Your task to perform on an android device: What's on my calendar today? Image 0: 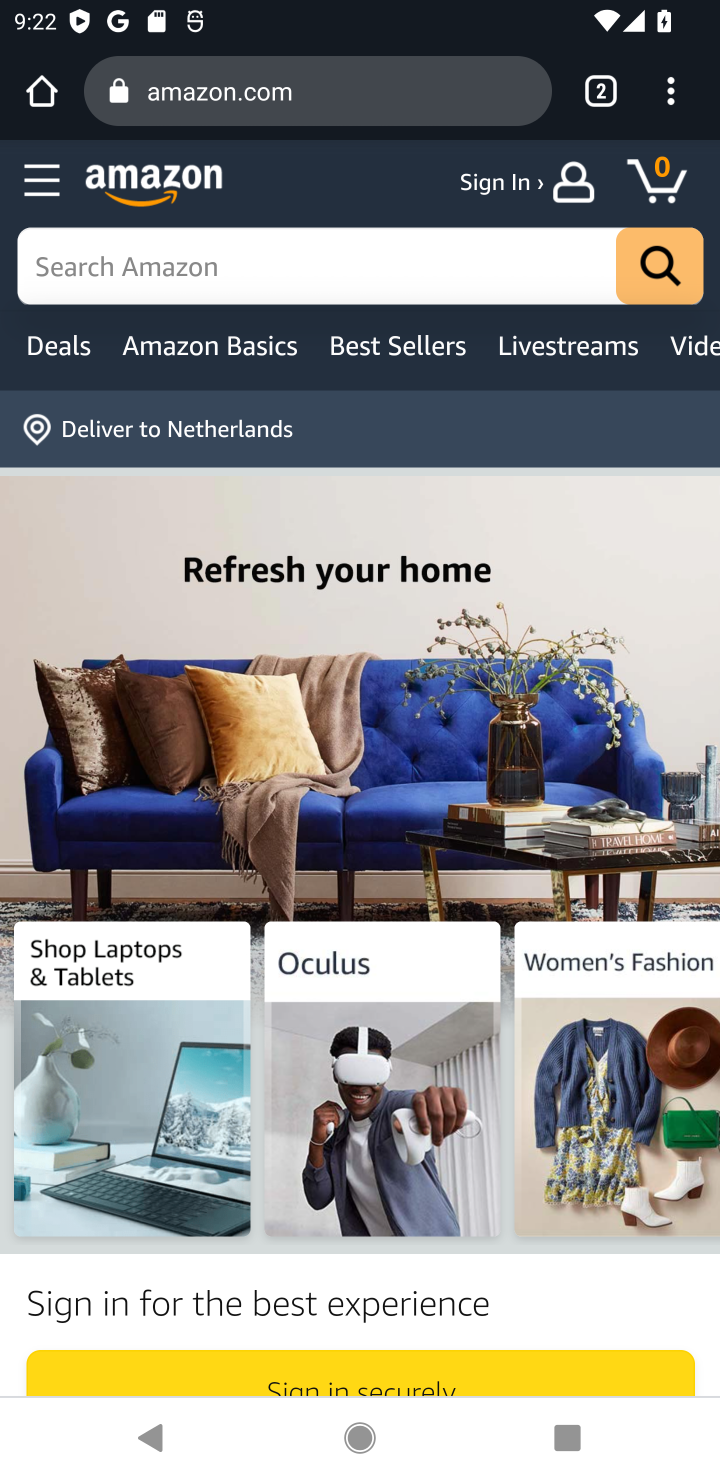
Step 0: press home button
Your task to perform on an android device: What's on my calendar today? Image 1: 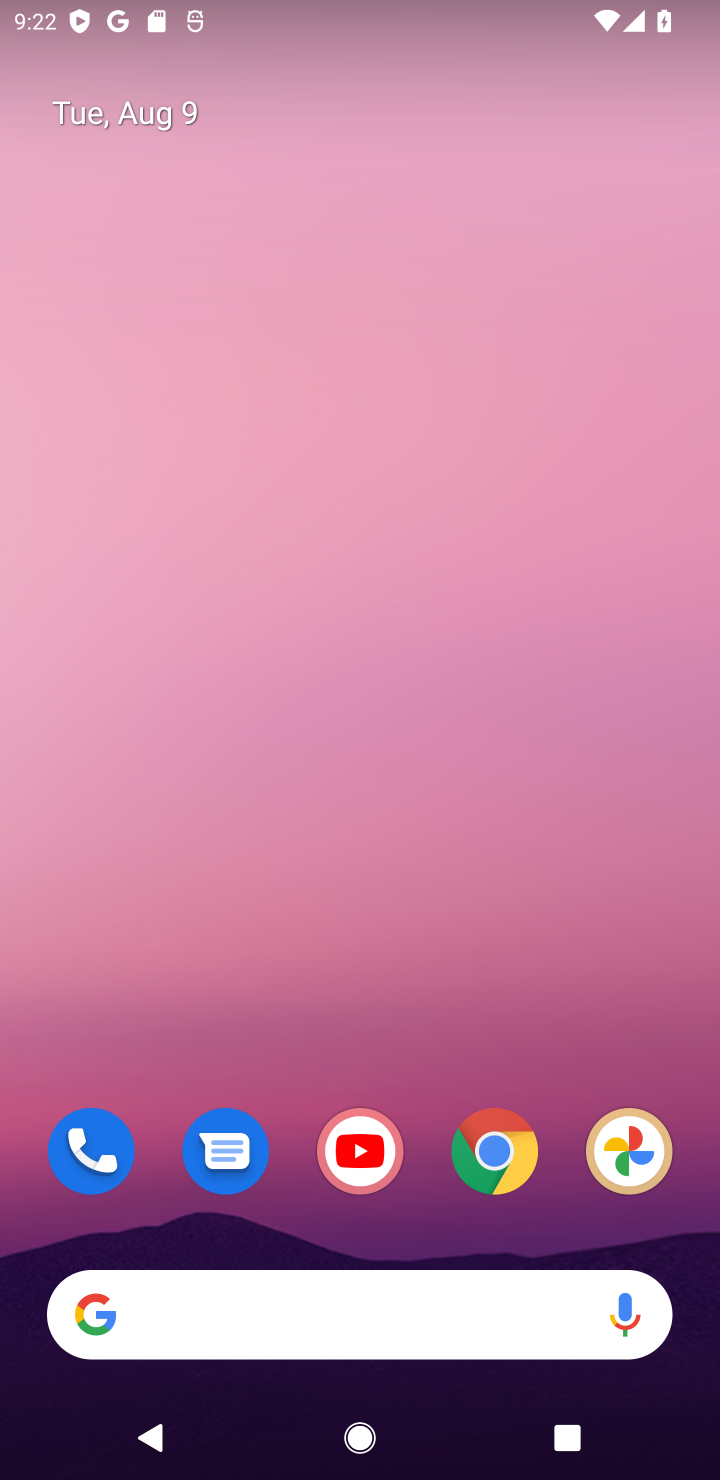
Step 1: drag from (408, 1057) to (423, 610)
Your task to perform on an android device: What's on my calendar today? Image 2: 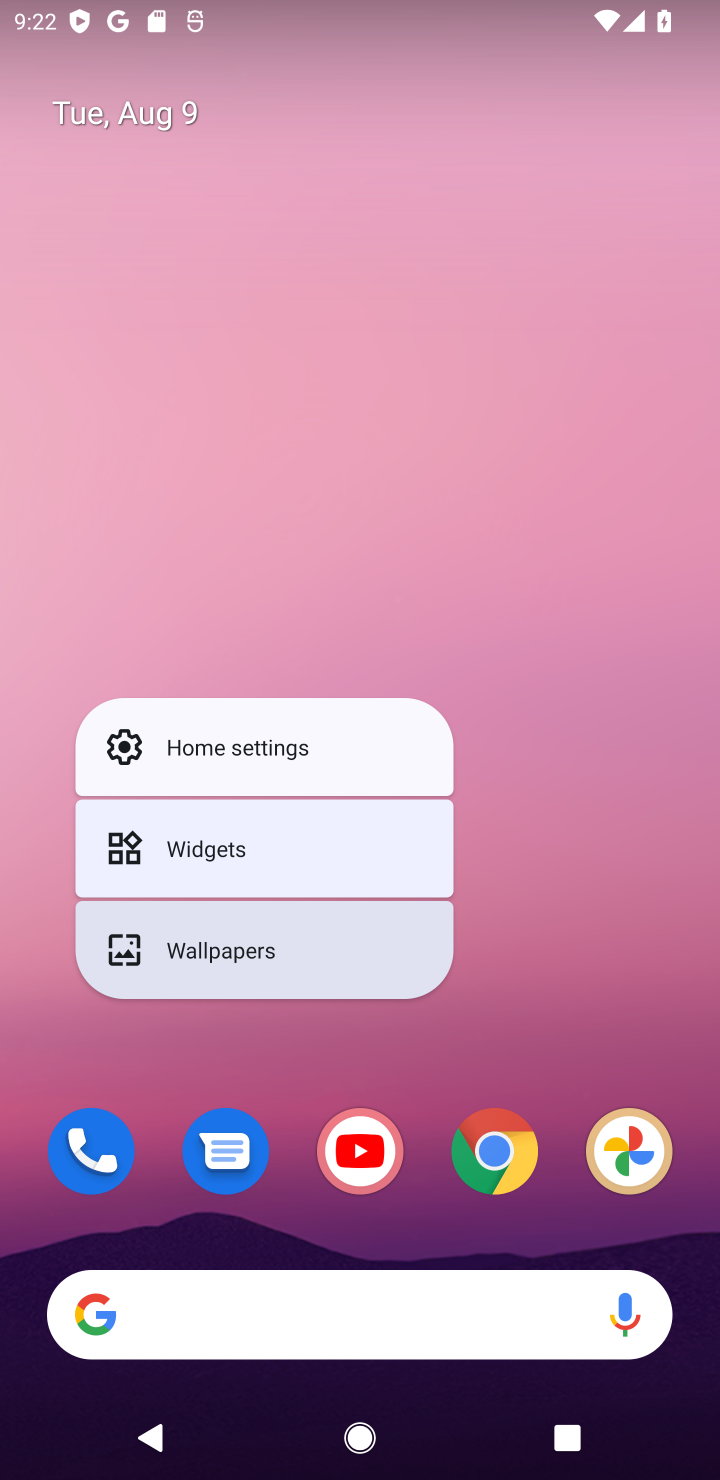
Step 2: click (120, 102)
Your task to perform on an android device: What's on my calendar today? Image 3: 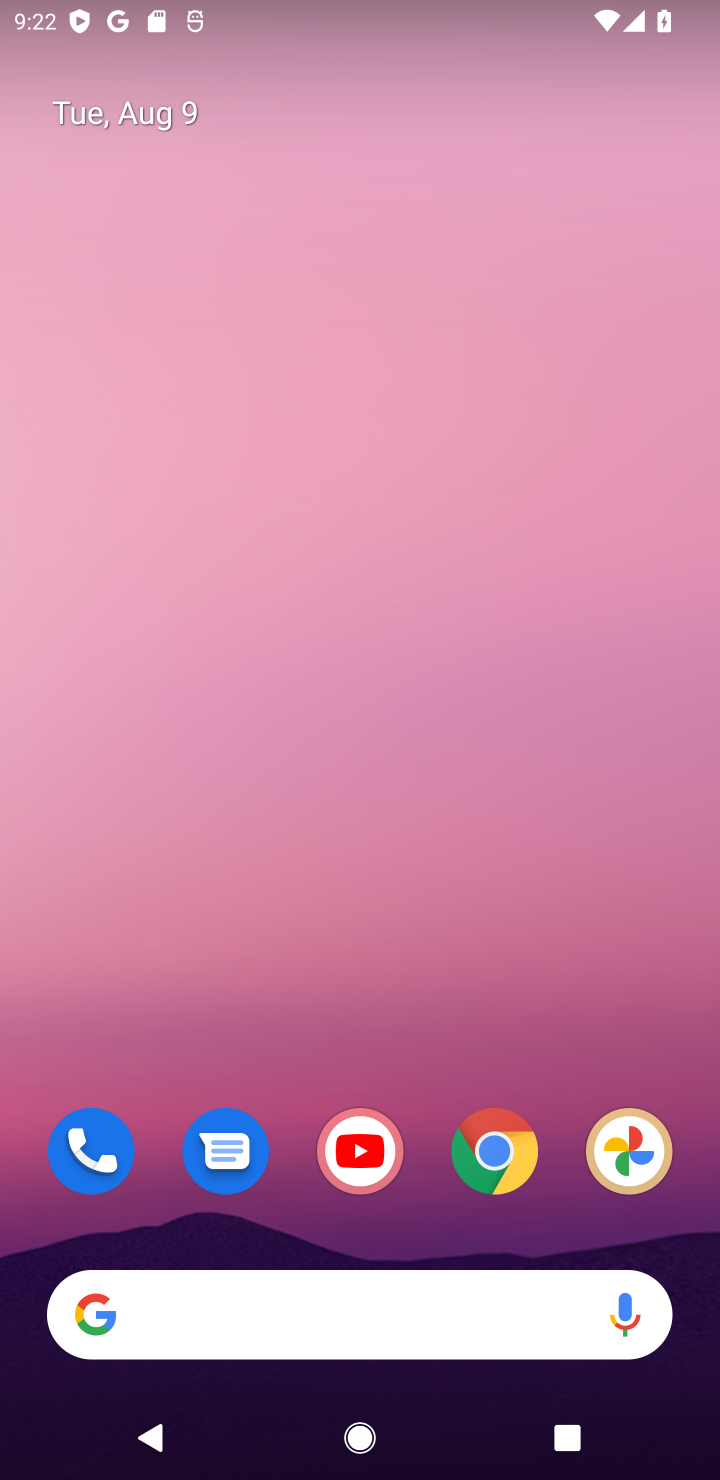
Step 3: click (120, 102)
Your task to perform on an android device: What's on my calendar today? Image 4: 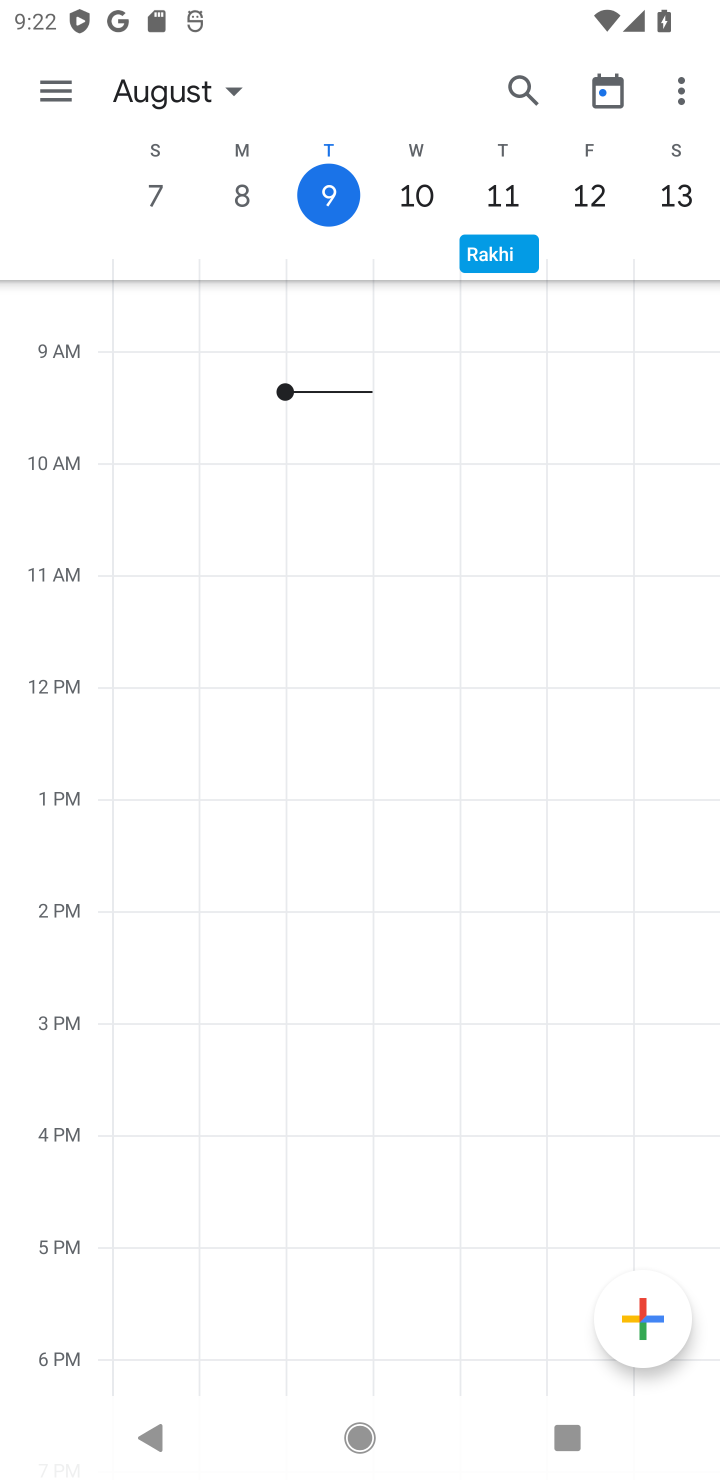
Step 4: click (62, 87)
Your task to perform on an android device: What's on my calendar today? Image 5: 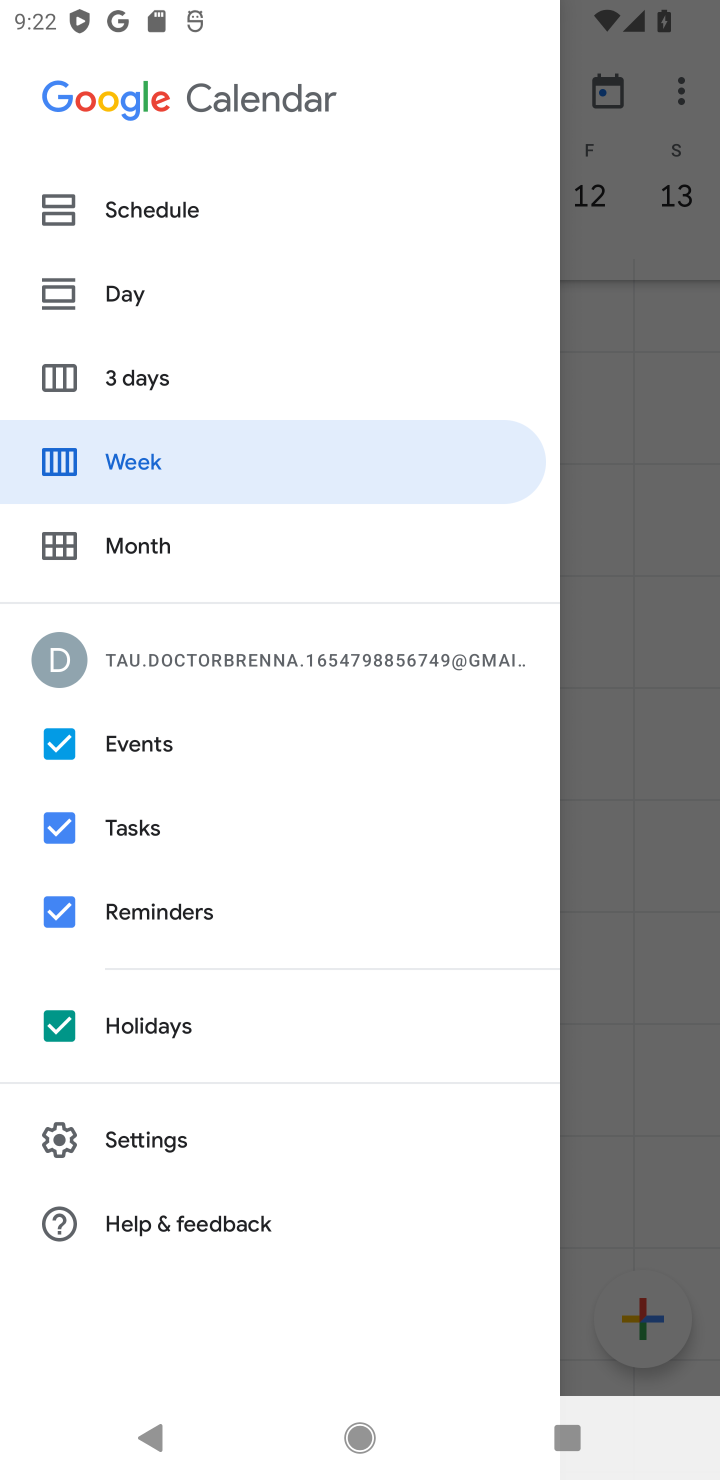
Step 5: click (130, 299)
Your task to perform on an android device: What's on my calendar today? Image 6: 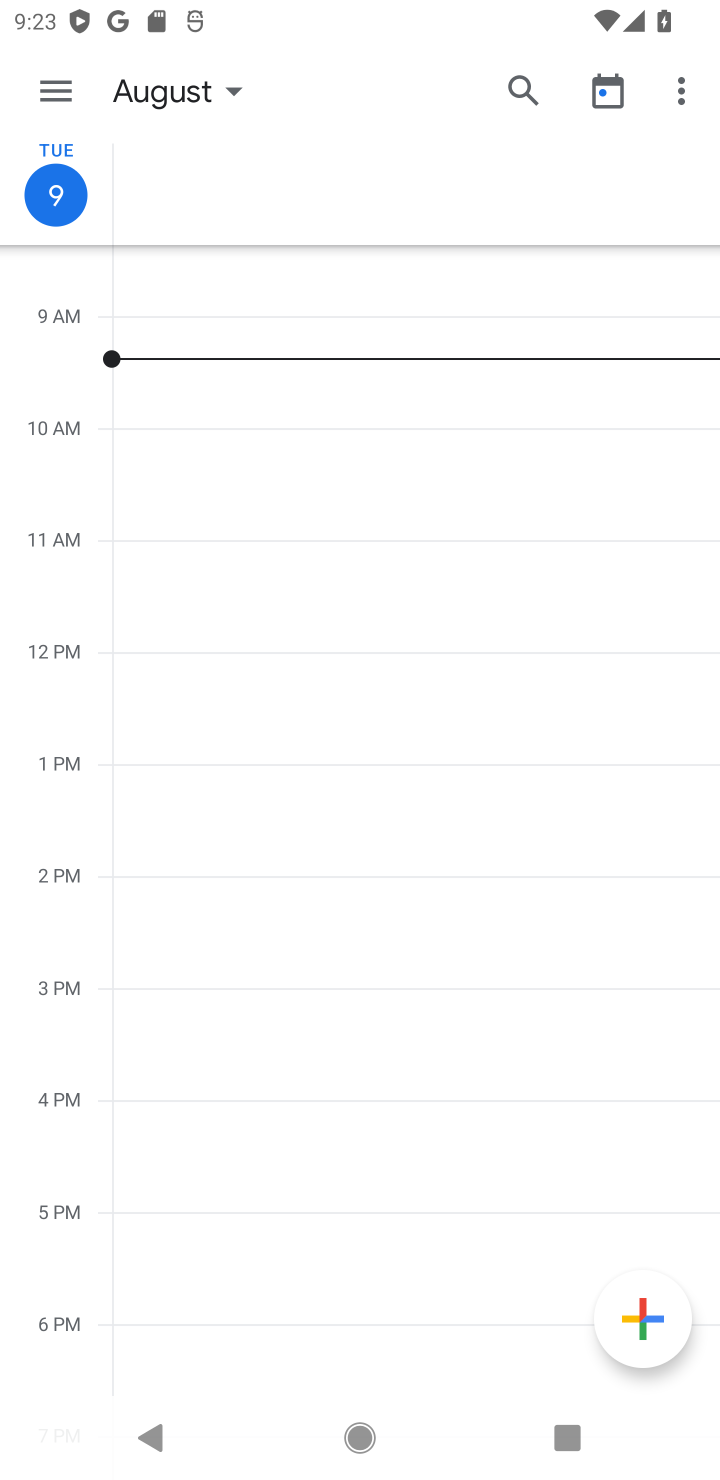
Step 6: click (129, 299)
Your task to perform on an android device: What's on my calendar today? Image 7: 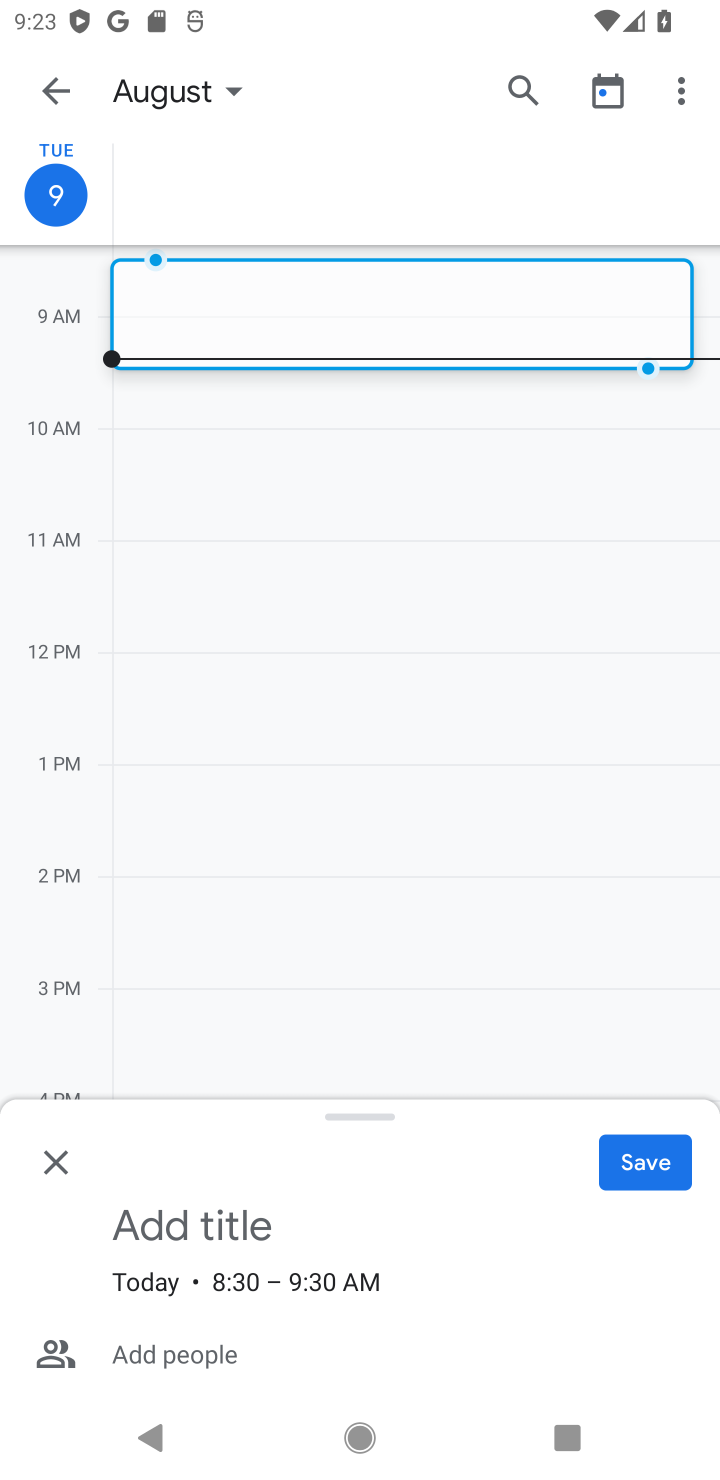
Step 7: click (137, 323)
Your task to perform on an android device: What's on my calendar today? Image 8: 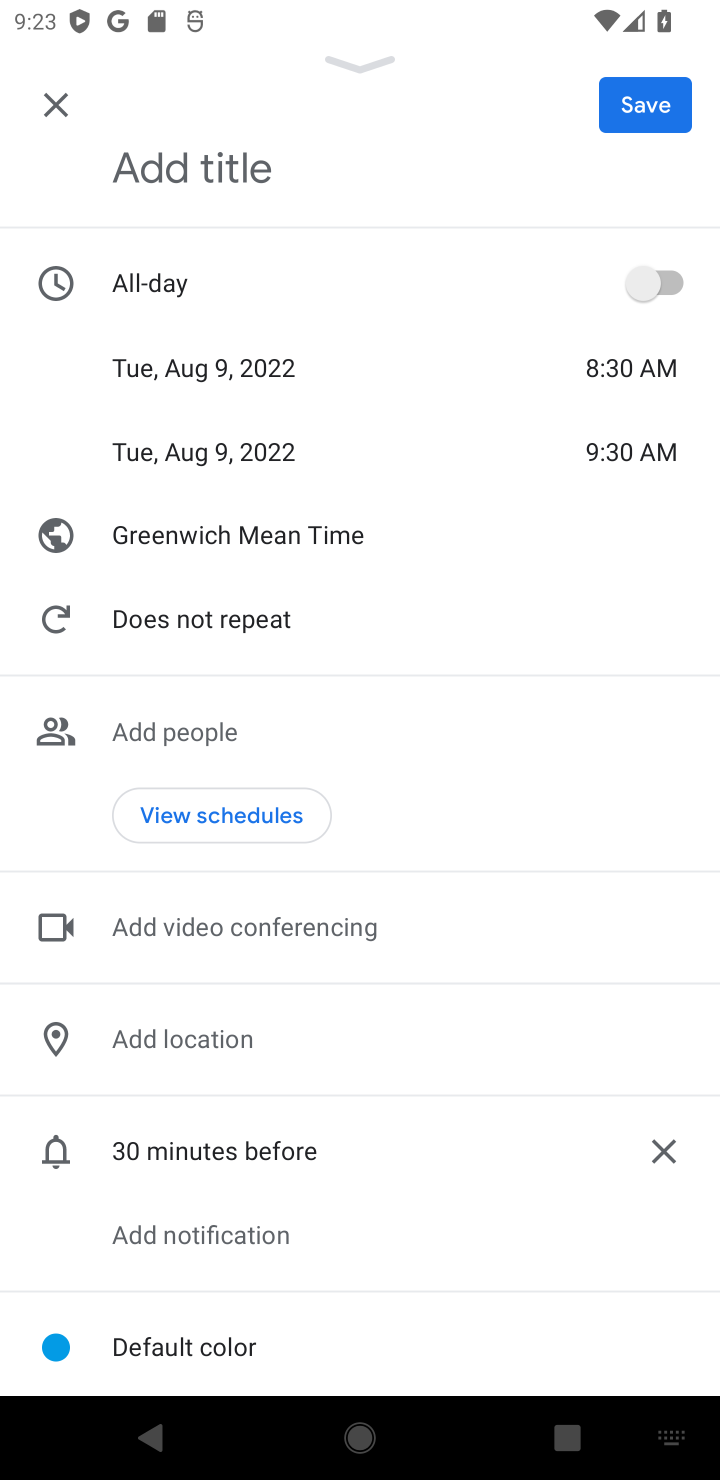
Step 8: click (137, 323)
Your task to perform on an android device: What's on my calendar today? Image 9: 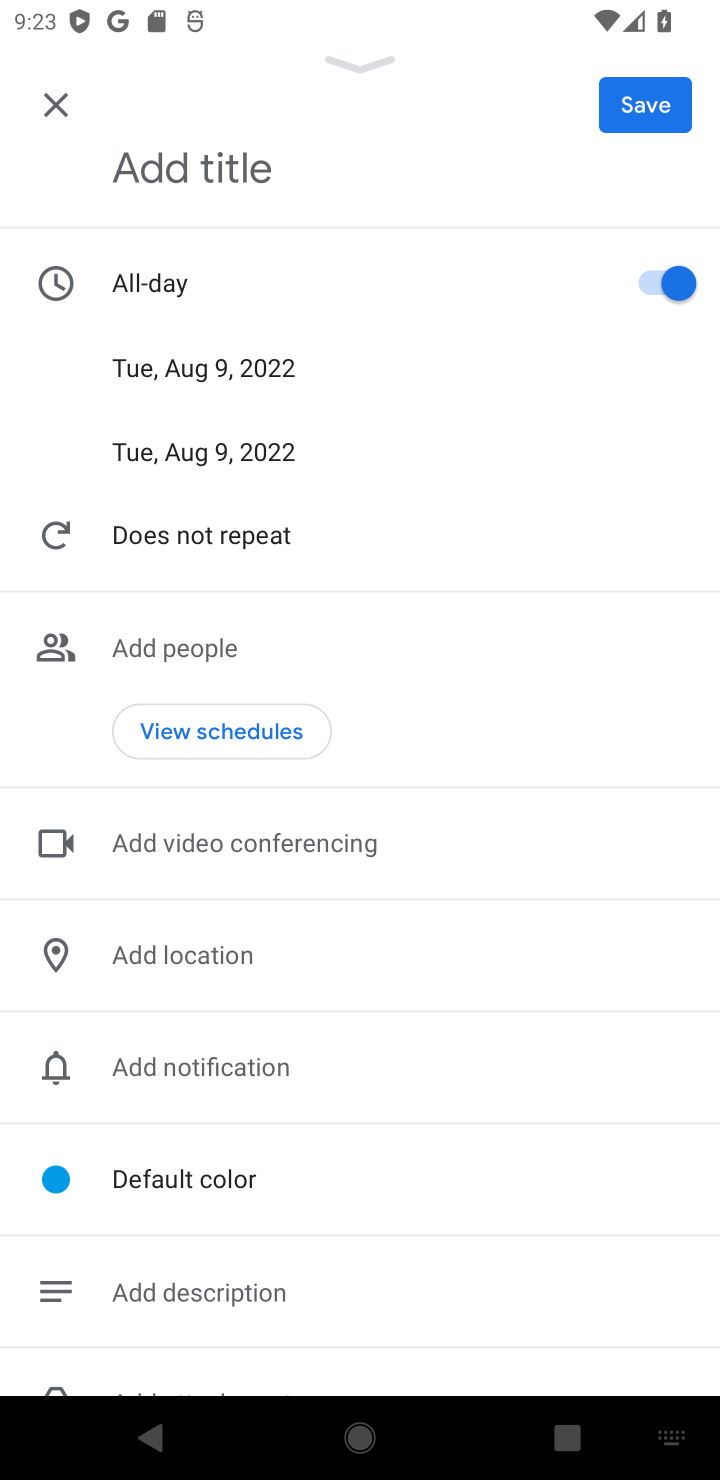
Step 9: click (137, 323)
Your task to perform on an android device: What's on my calendar today? Image 10: 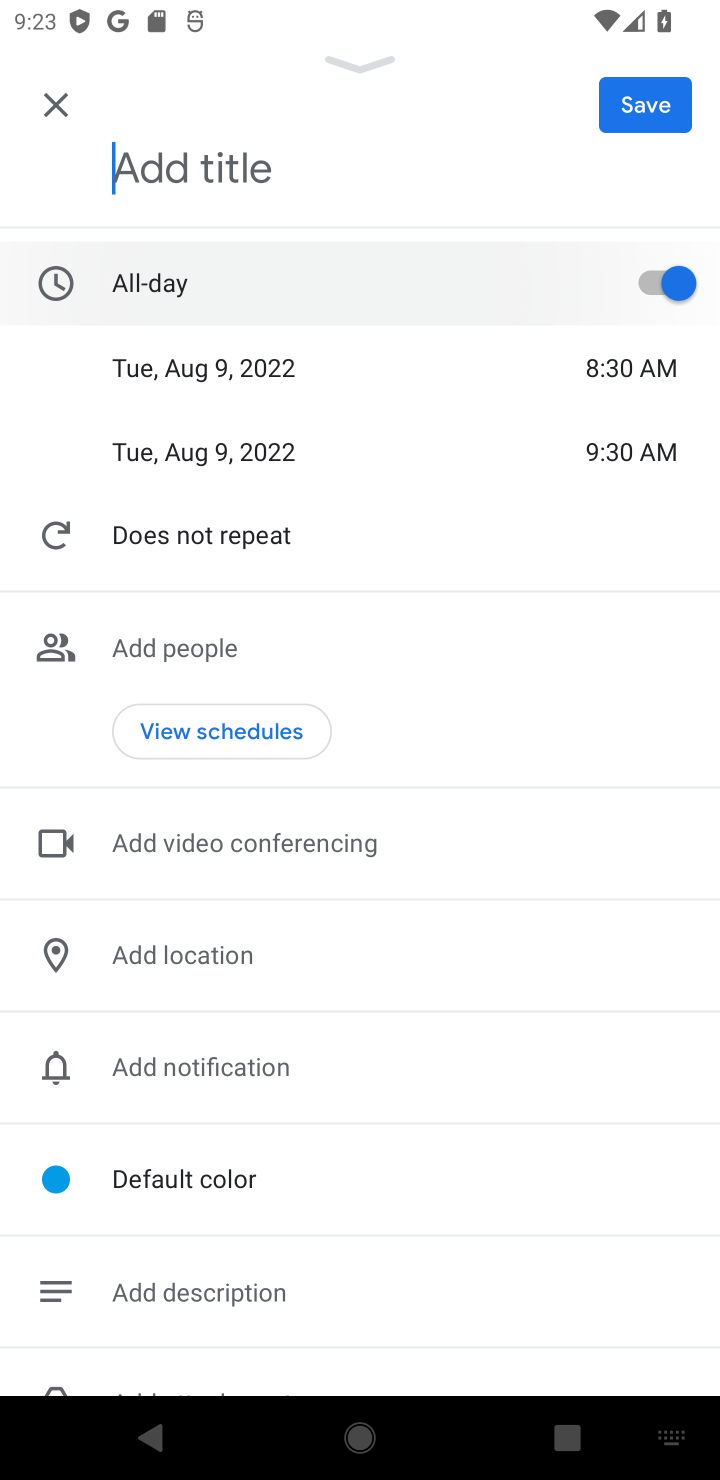
Step 10: click (137, 323)
Your task to perform on an android device: What's on my calendar today? Image 11: 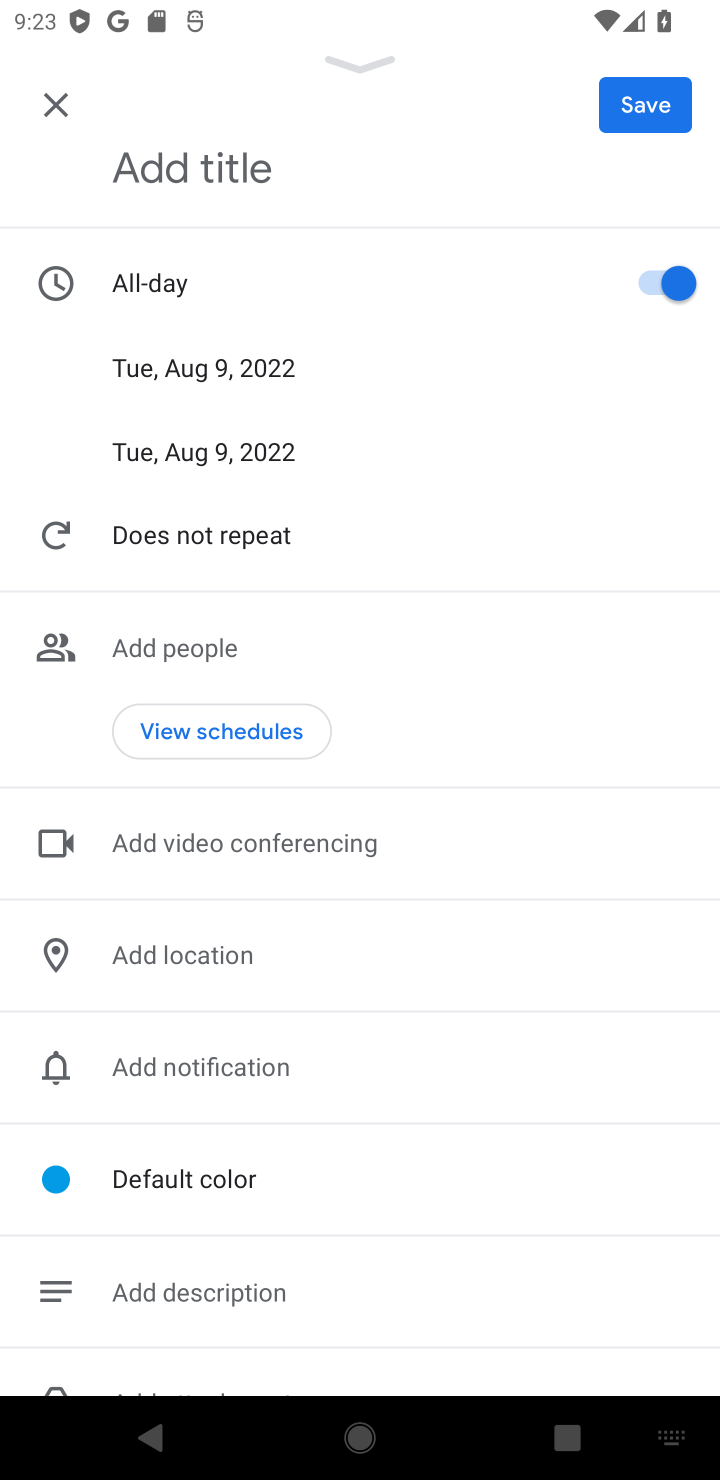
Step 11: click (137, 323)
Your task to perform on an android device: What's on my calendar today? Image 12: 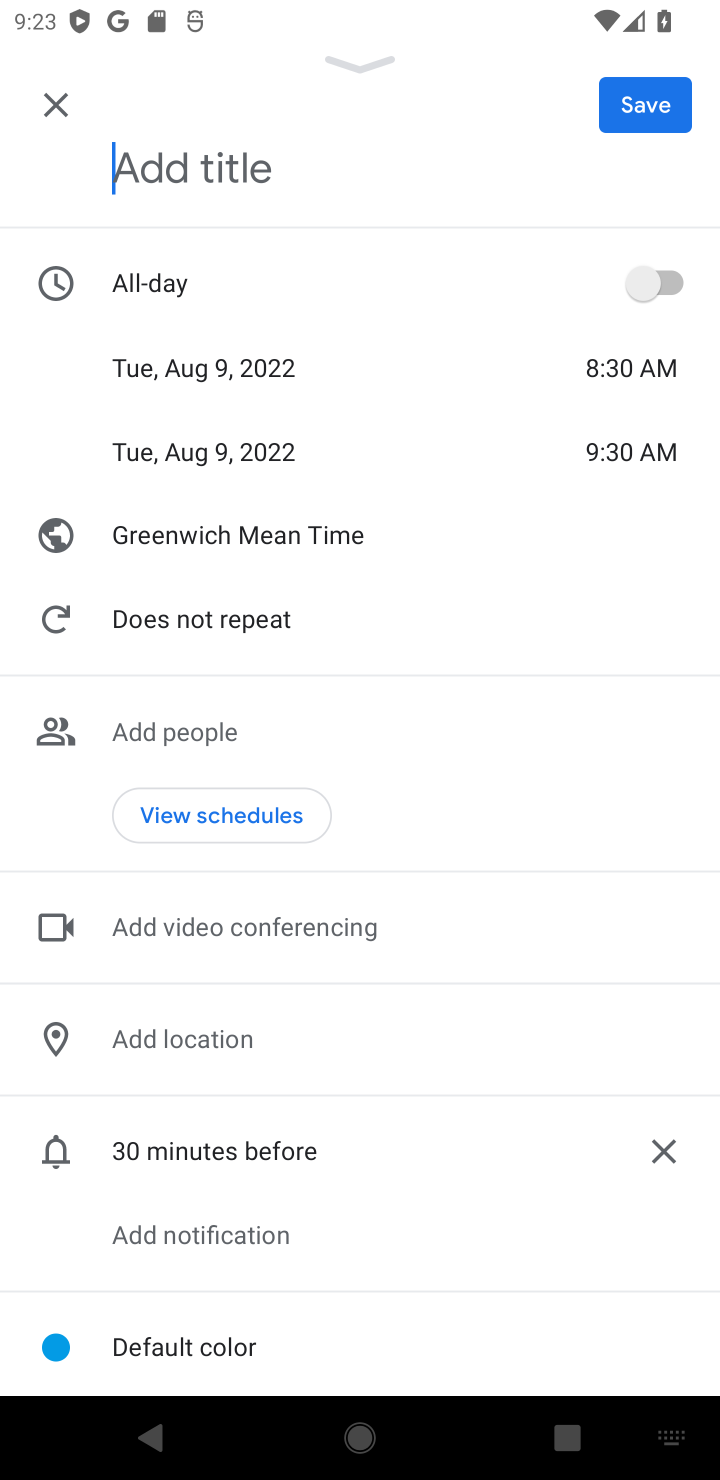
Step 12: click (137, 323)
Your task to perform on an android device: What's on my calendar today? Image 13: 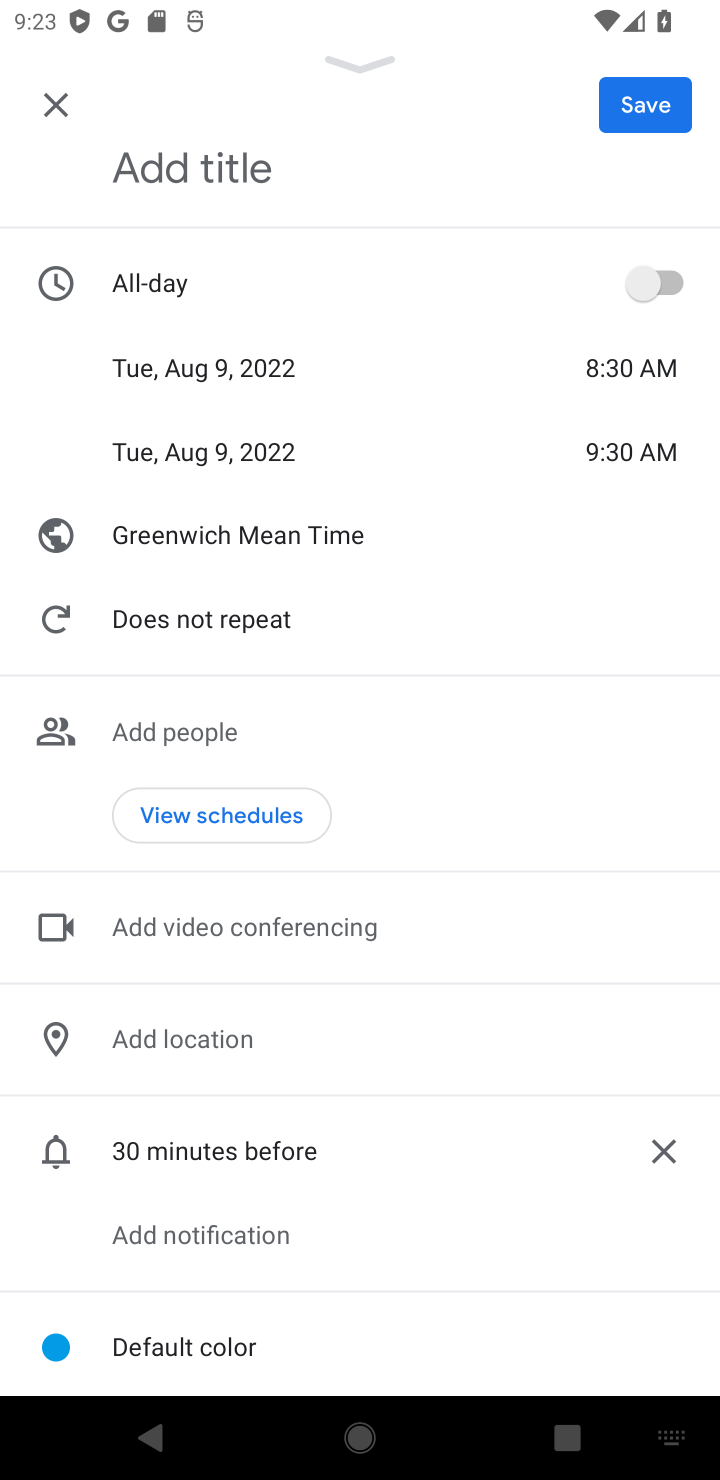
Step 13: click (137, 323)
Your task to perform on an android device: What's on my calendar today? Image 14: 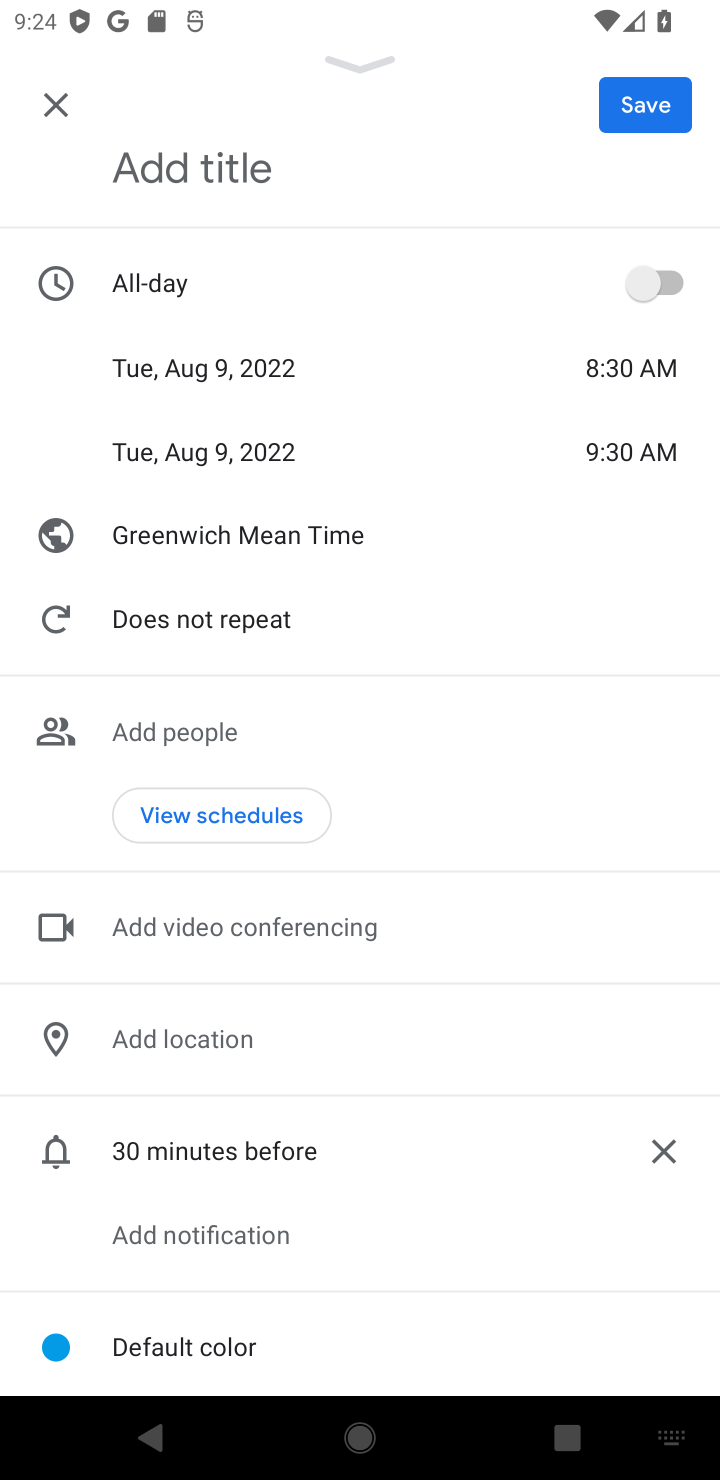
Step 14: click (137, 323)
Your task to perform on an android device: What's on my calendar today? Image 15: 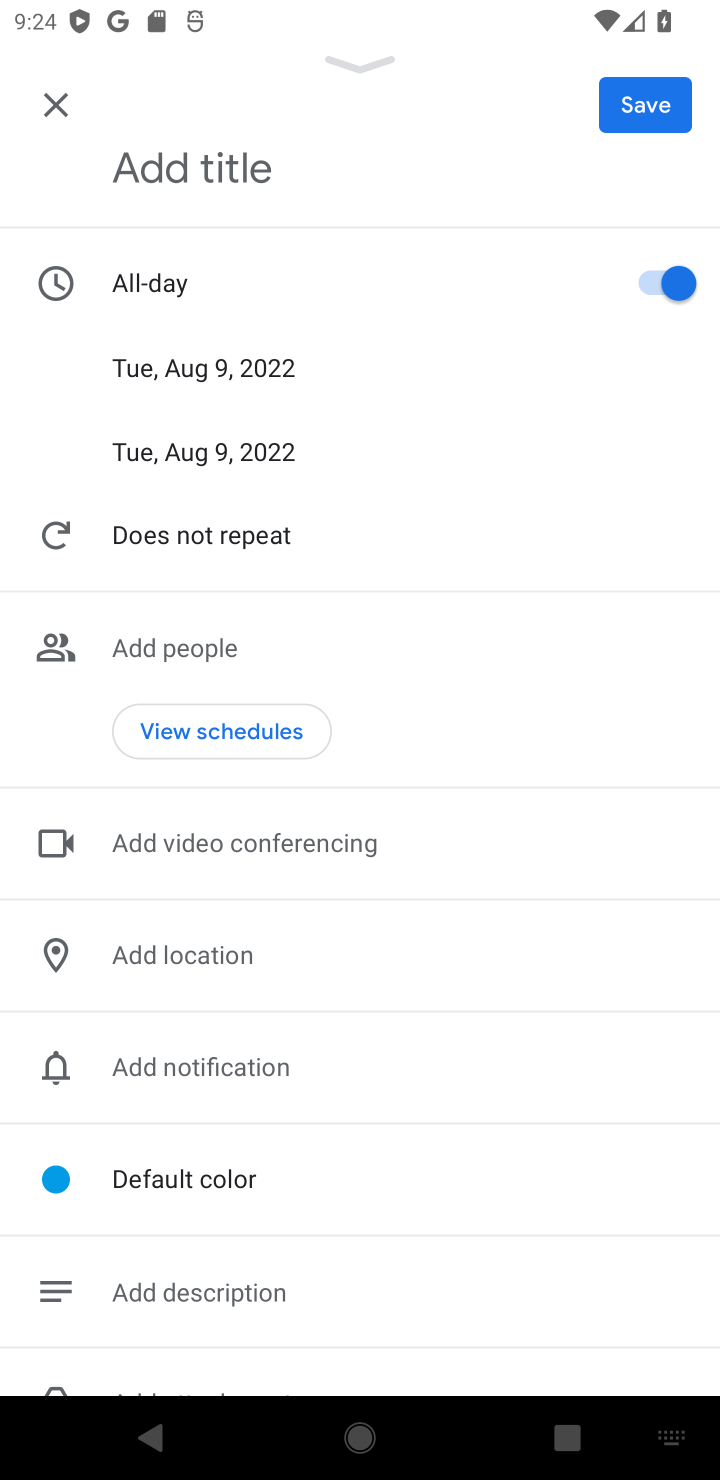
Step 15: click (137, 323)
Your task to perform on an android device: What's on my calendar today? Image 16: 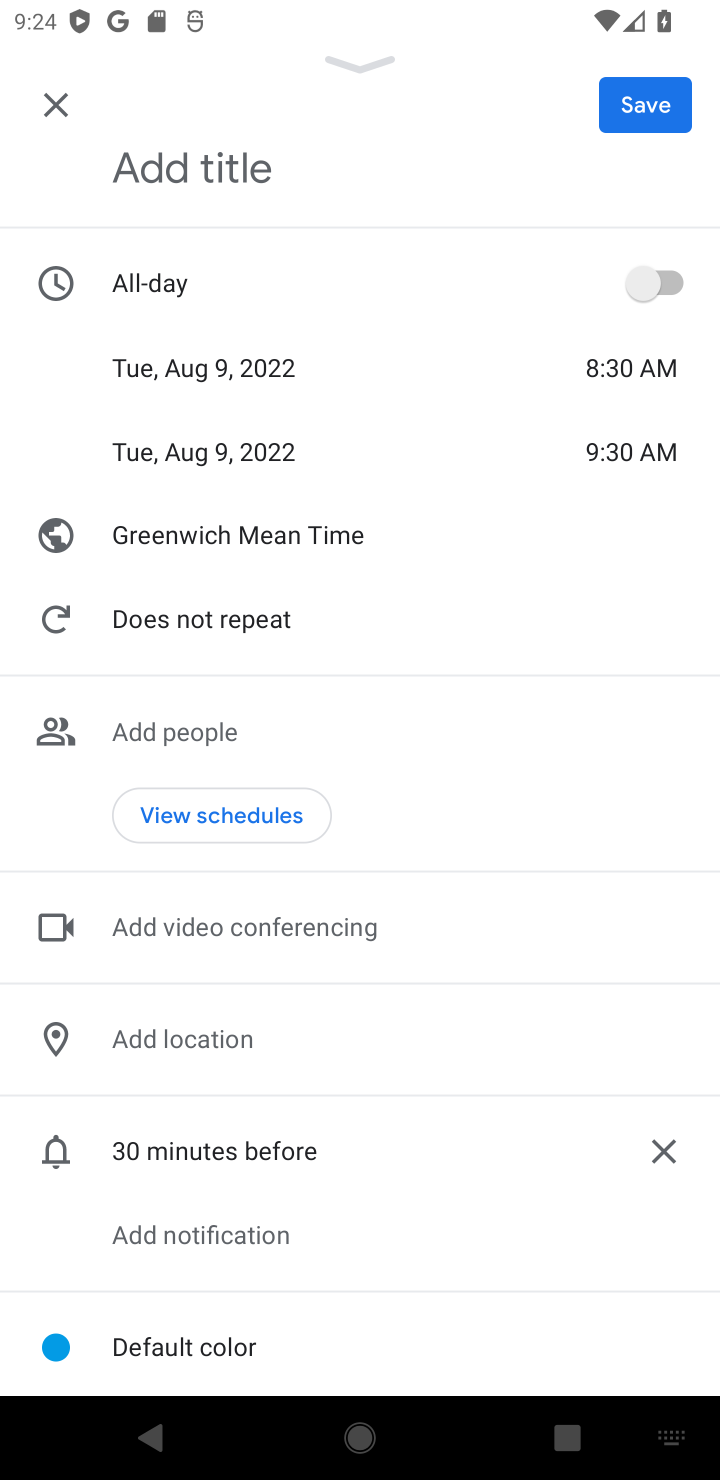
Step 16: click (137, 323)
Your task to perform on an android device: What's on my calendar today? Image 17: 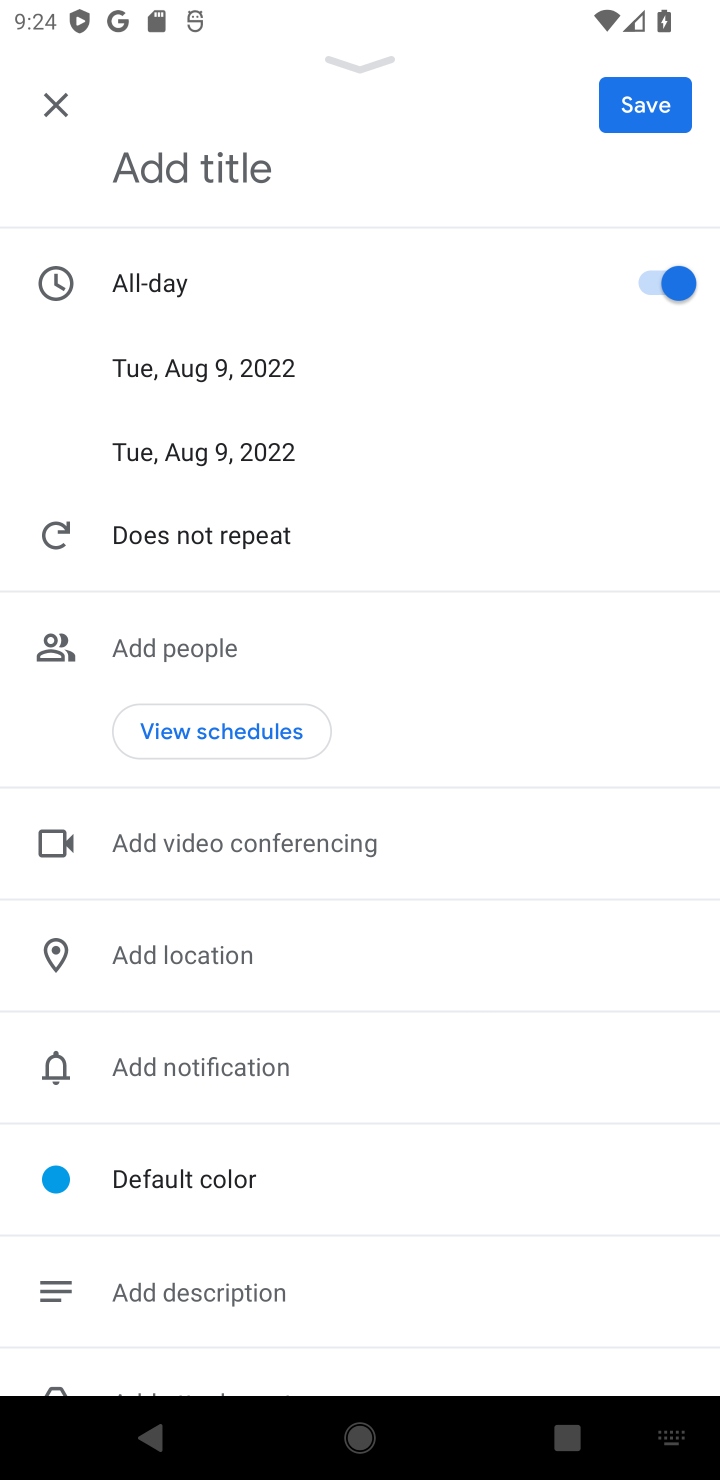
Step 17: click (137, 323)
Your task to perform on an android device: What's on my calendar today? Image 18: 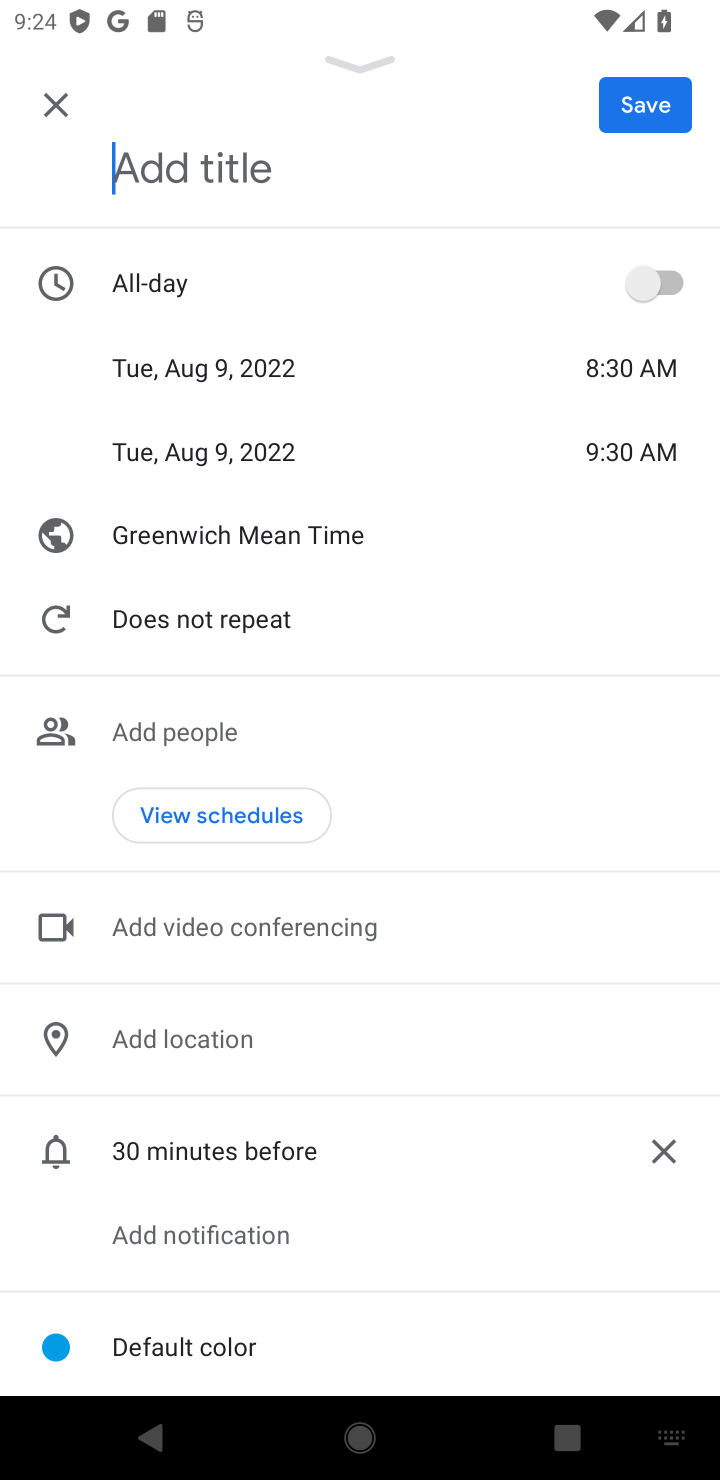
Step 18: click (137, 323)
Your task to perform on an android device: What's on my calendar today? Image 19: 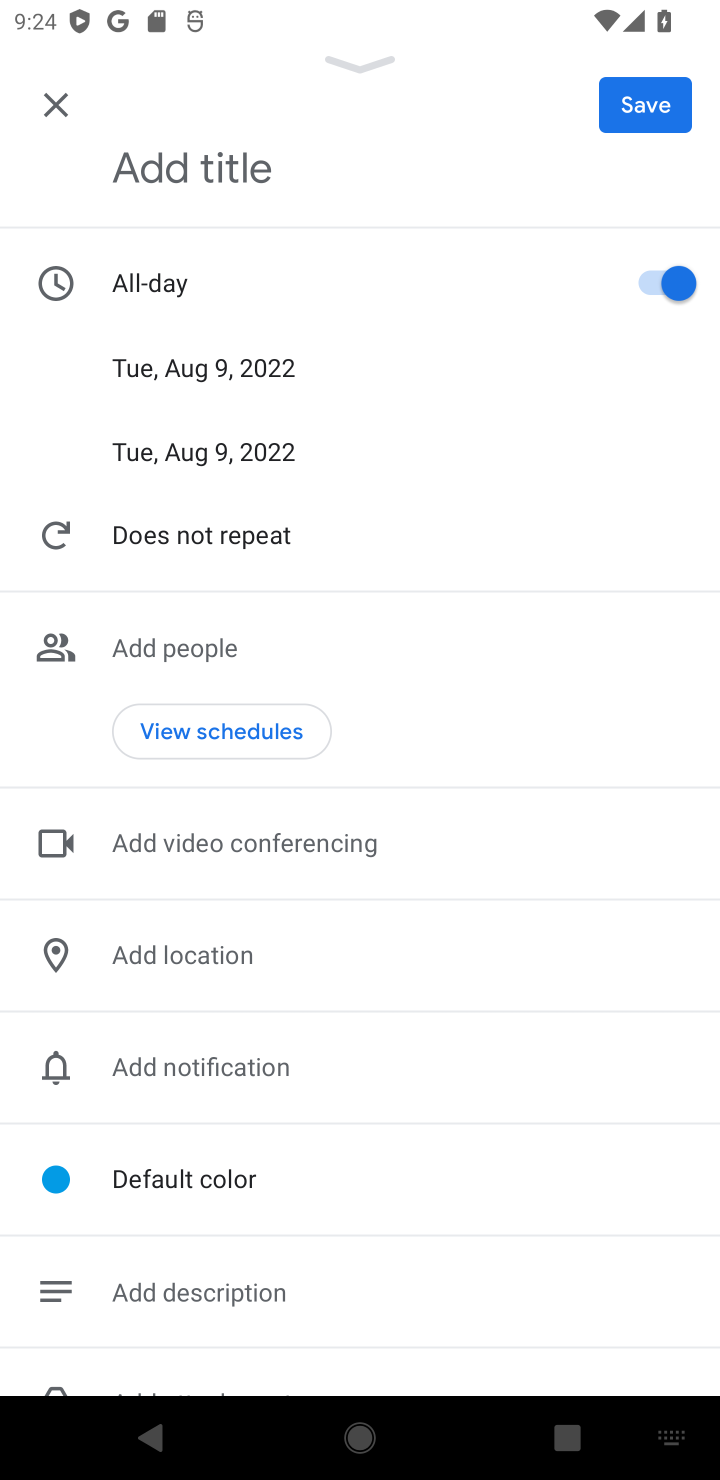
Step 19: click (137, 323)
Your task to perform on an android device: What's on my calendar today? Image 20: 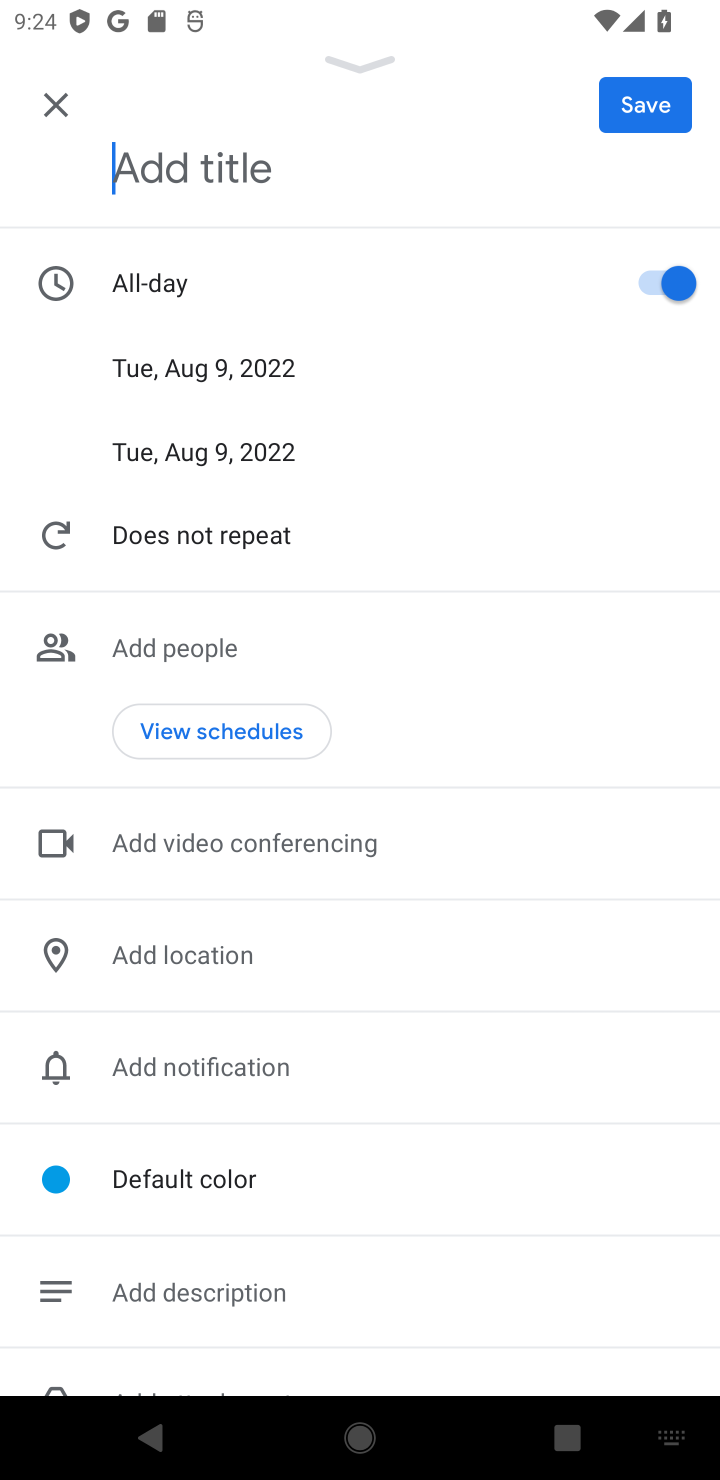
Step 20: click (137, 323)
Your task to perform on an android device: What's on my calendar today? Image 21: 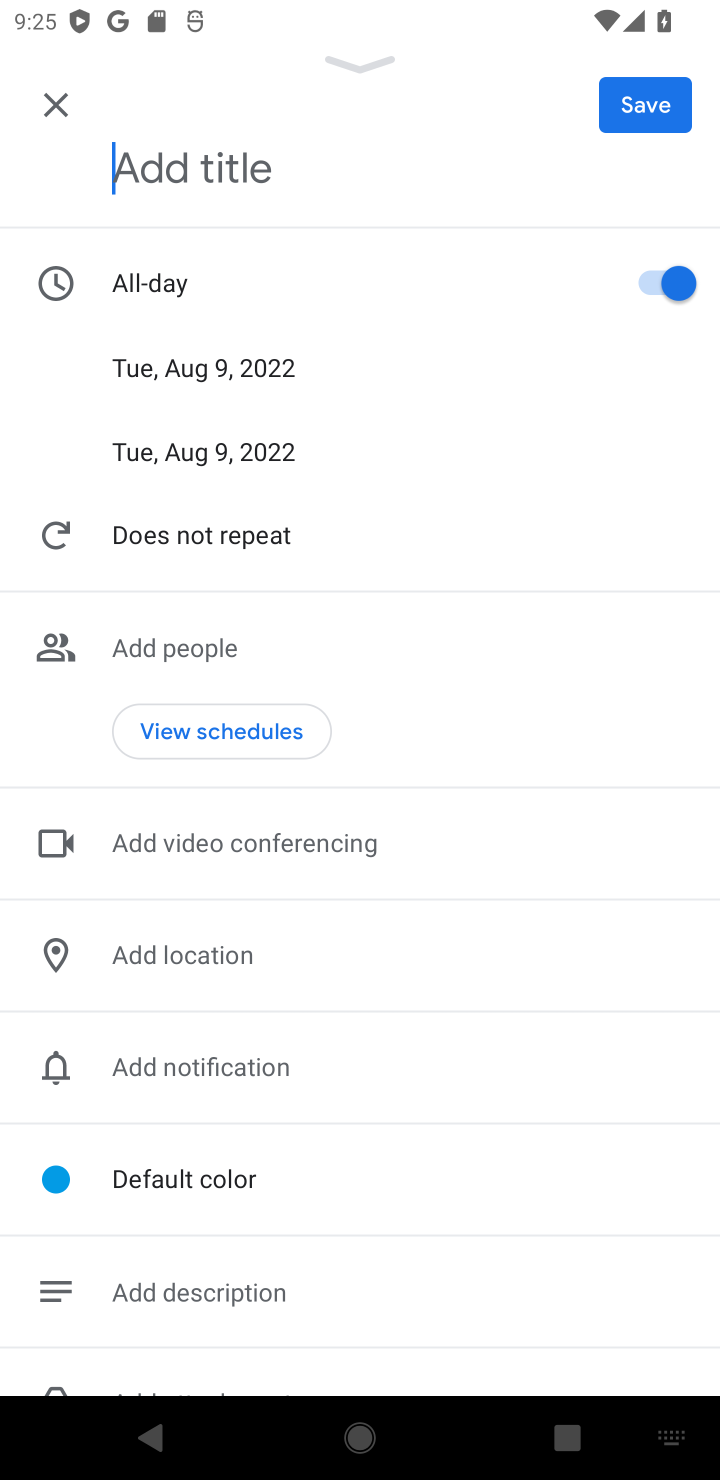
Step 21: task complete